Your task to perform on an android device: turn off wifi Image 0: 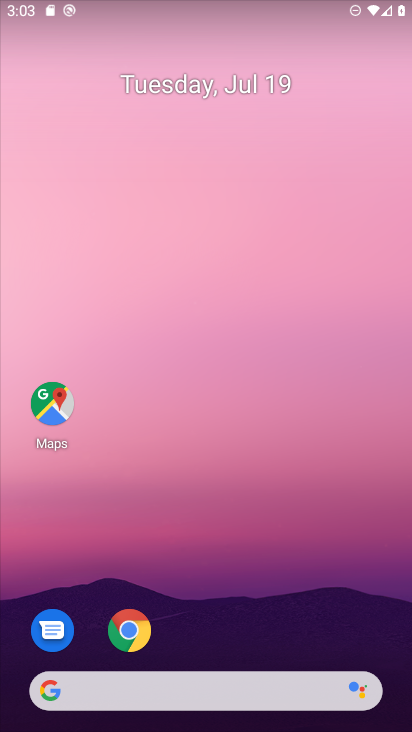
Step 0: drag from (383, 612) to (325, 129)
Your task to perform on an android device: turn off wifi Image 1: 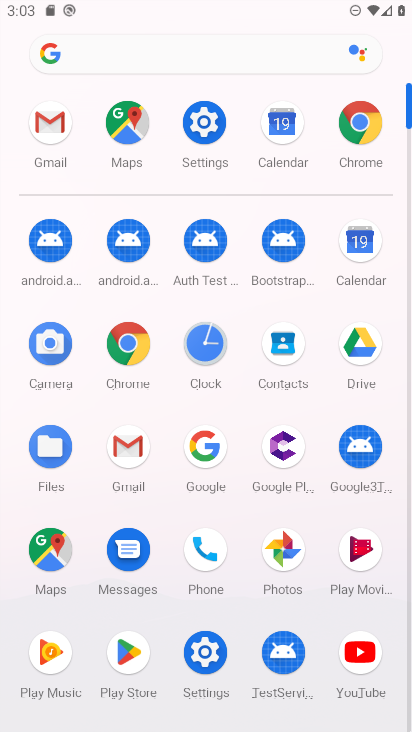
Step 1: click (205, 651)
Your task to perform on an android device: turn off wifi Image 2: 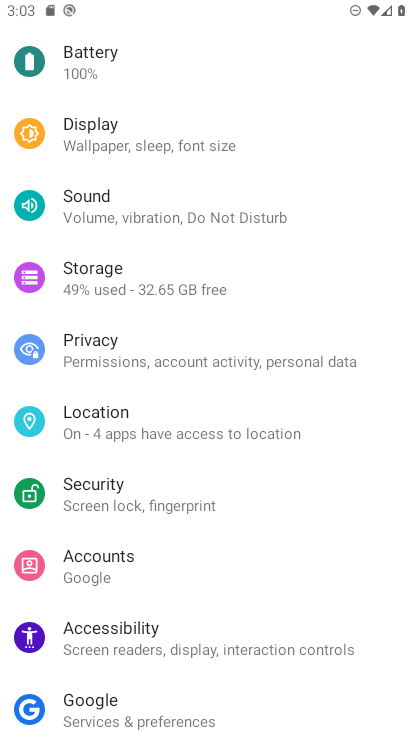
Step 2: drag from (302, 81) to (291, 345)
Your task to perform on an android device: turn off wifi Image 3: 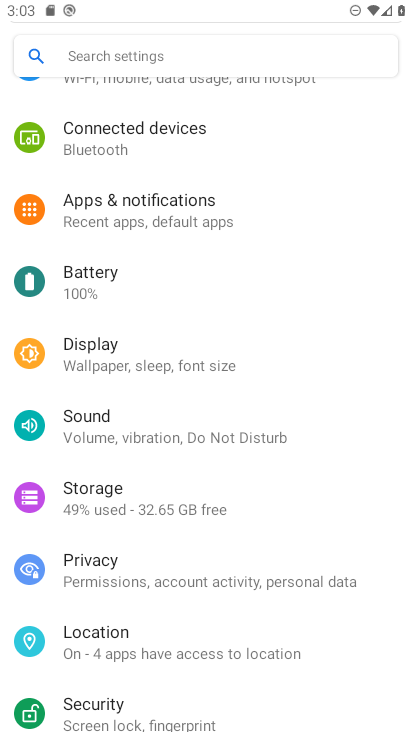
Step 3: drag from (283, 206) to (262, 412)
Your task to perform on an android device: turn off wifi Image 4: 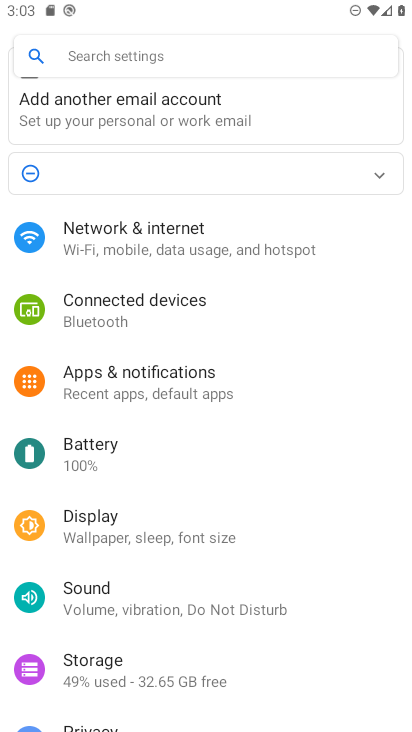
Step 4: click (125, 238)
Your task to perform on an android device: turn off wifi Image 5: 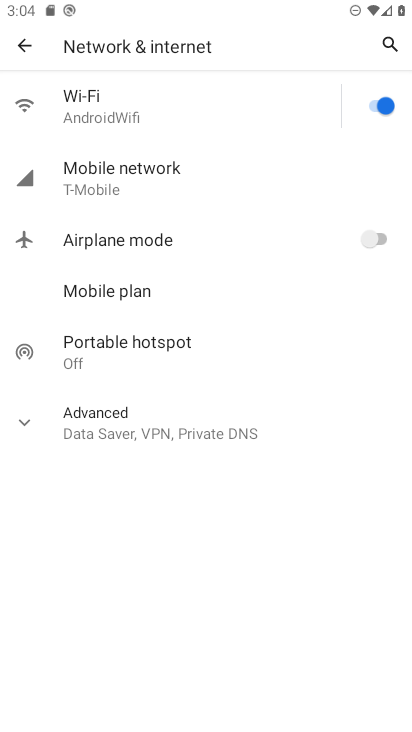
Step 5: click (368, 102)
Your task to perform on an android device: turn off wifi Image 6: 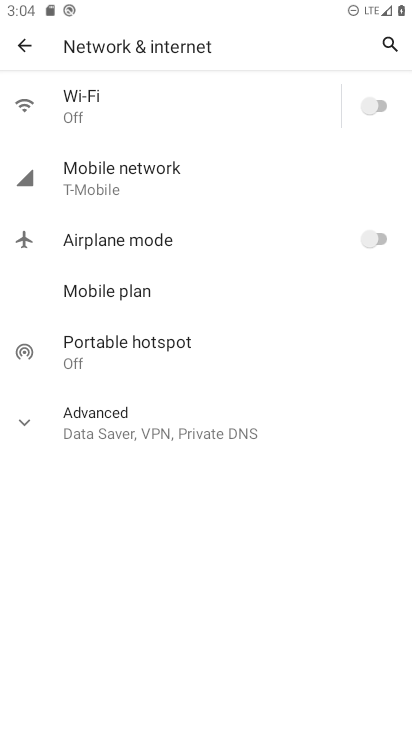
Step 6: task complete